Your task to perform on an android device: Open network settings Image 0: 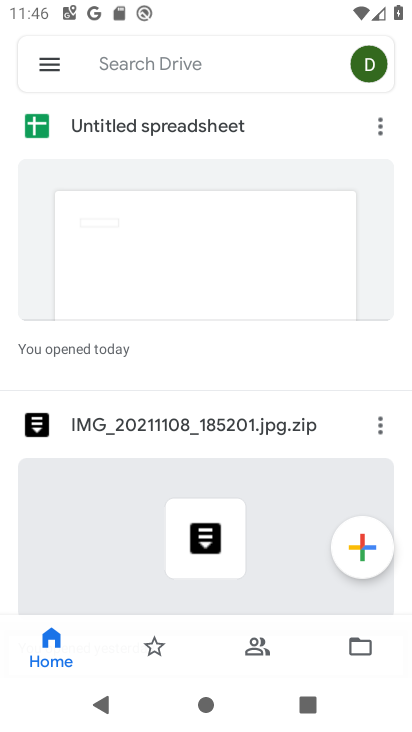
Step 0: press home button
Your task to perform on an android device: Open network settings Image 1: 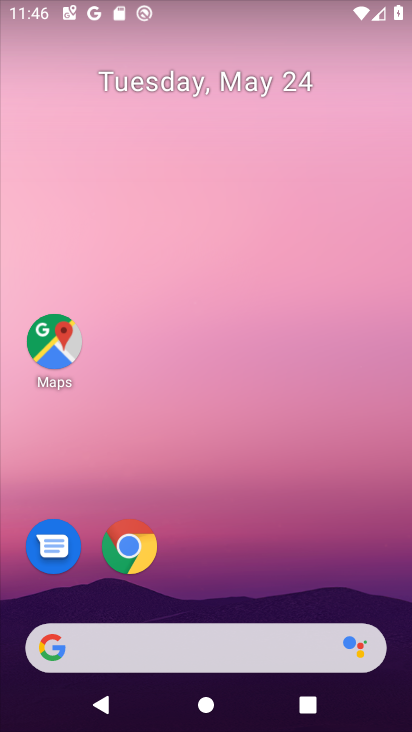
Step 1: drag from (255, 589) to (301, 2)
Your task to perform on an android device: Open network settings Image 2: 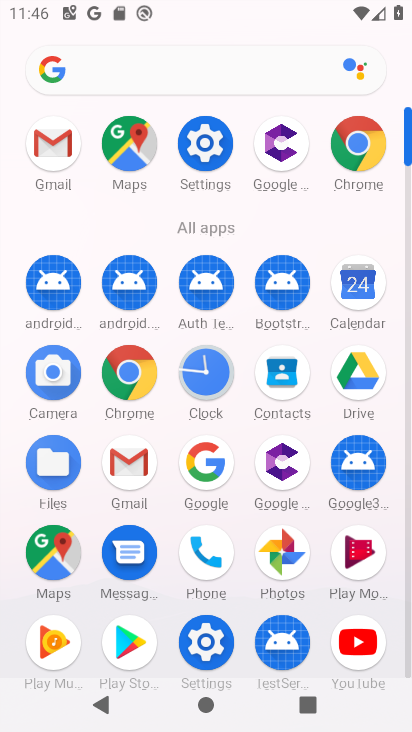
Step 2: click (209, 164)
Your task to perform on an android device: Open network settings Image 3: 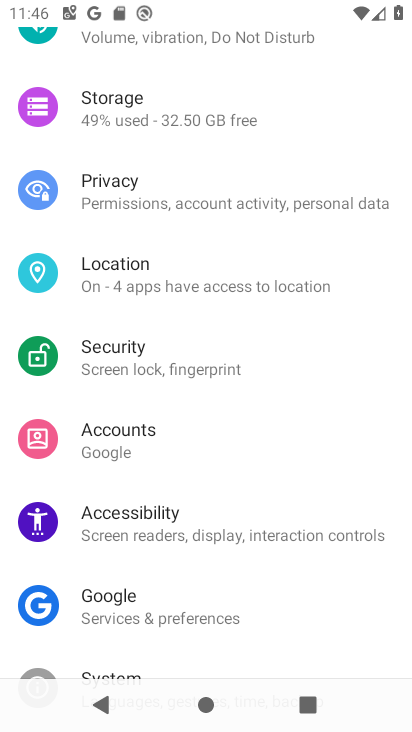
Step 3: drag from (223, 144) to (216, 601)
Your task to perform on an android device: Open network settings Image 4: 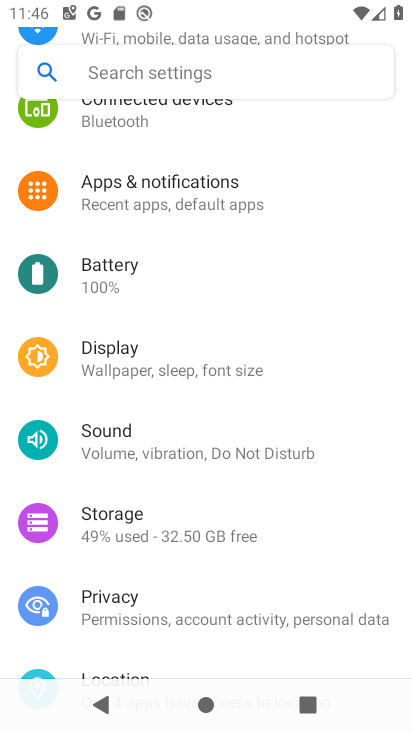
Step 4: click (187, 74)
Your task to perform on an android device: Open network settings Image 5: 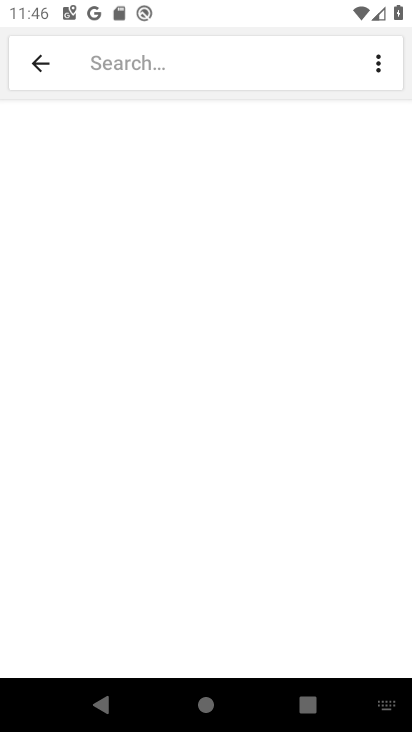
Step 5: click (20, 74)
Your task to perform on an android device: Open network settings Image 6: 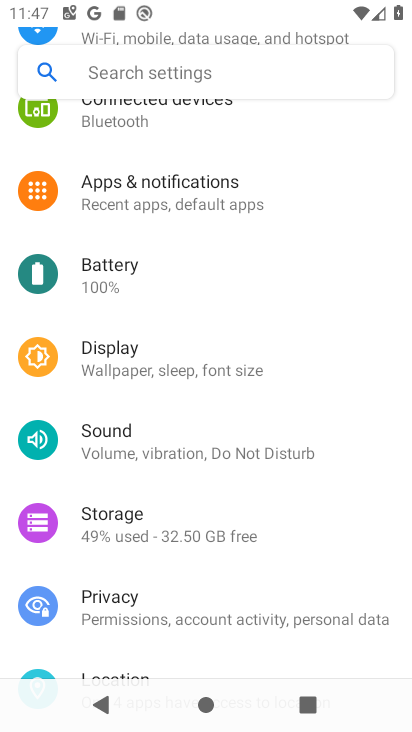
Step 6: drag from (251, 211) to (264, 563)
Your task to perform on an android device: Open network settings Image 7: 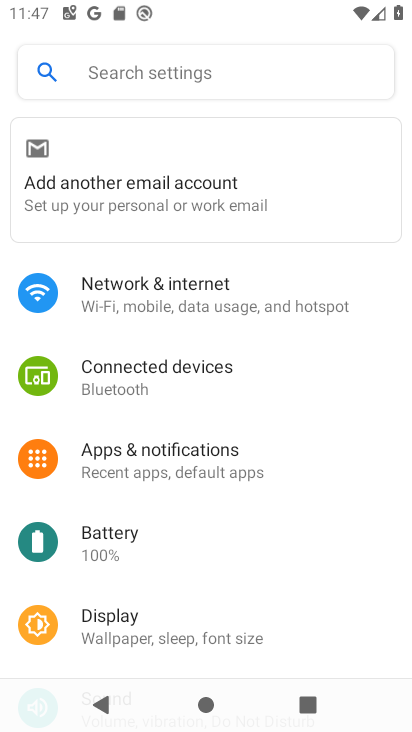
Step 7: click (235, 312)
Your task to perform on an android device: Open network settings Image 8: 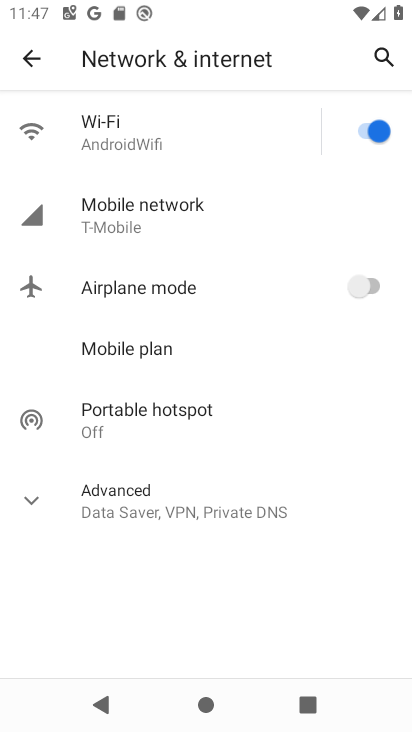
Step 8: task complete